Your task to perform on an android device: Open Youtube and go to the subscriptions tab Image 0: 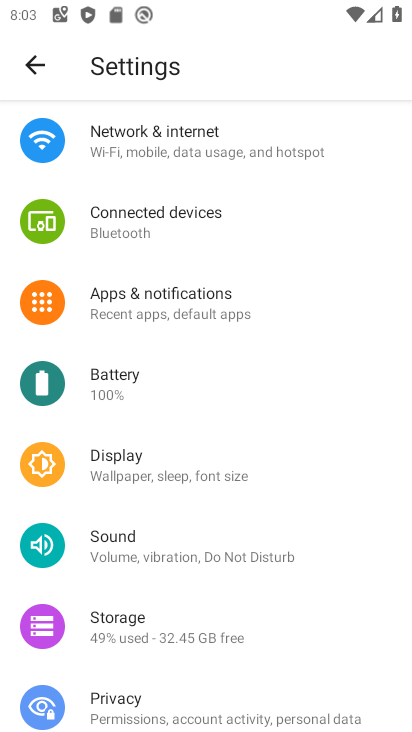
Step 0: press home button
Your task to perform on an android device: Open Youtube and go to the subscriptions tab Image 1: 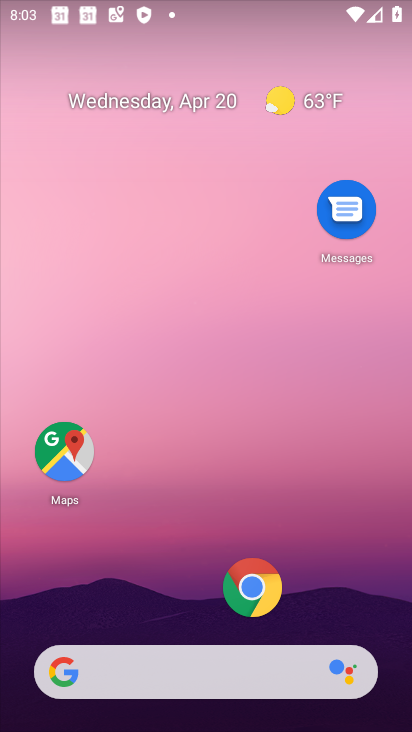
Step 1: drag from (184, 649) to (350, 1)
Your task to perform on an android device: Open Youtube and go to the subscriptions tab Image 2: 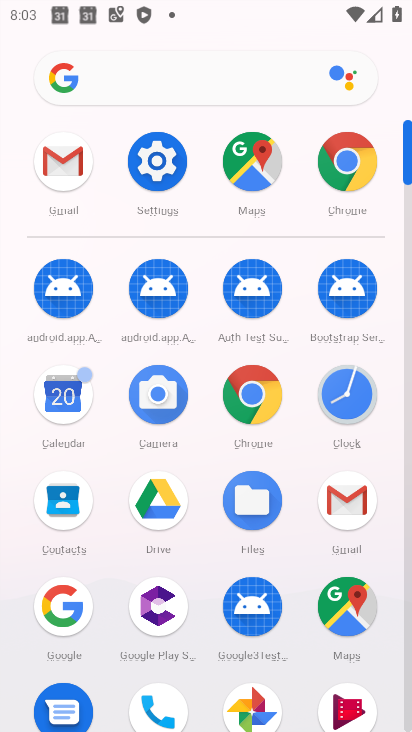
Step 2: drag from (200, 649) to (400, 197)
Your task to perform on an android device: Open Youtube and go to the subscriptions tab Image 3: 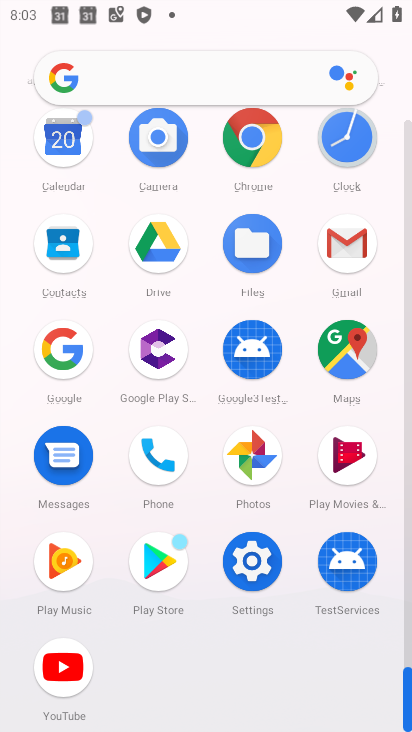
Step 3: click (69, 670)
Your task to perform on an android device: Open Youtube and go to the subscriptions tab Image 4: 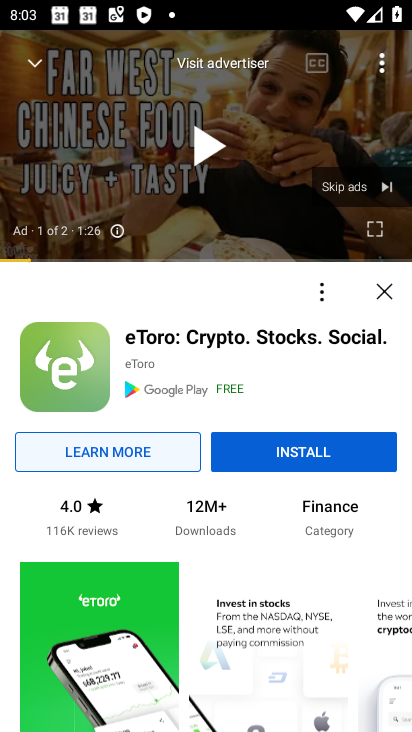
Step 4: press back button
Your task to perform on an android device: Open Youtube and go to the subscriptions tab Image 5: 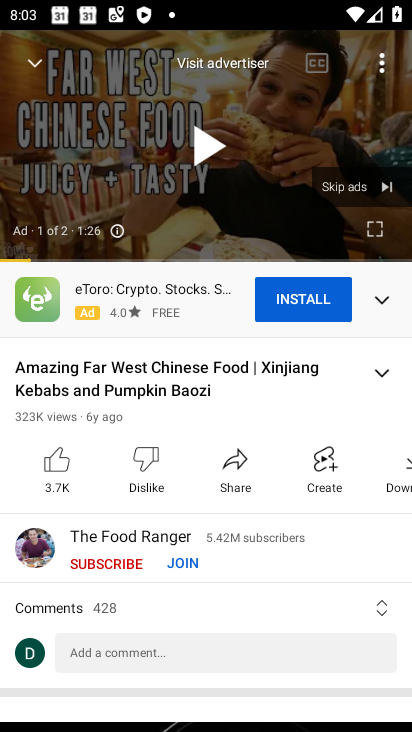
Step 5: click (384, 61)
Your task to perform on an android device: Open Youtube and go to the subscriptions tab Image 6: 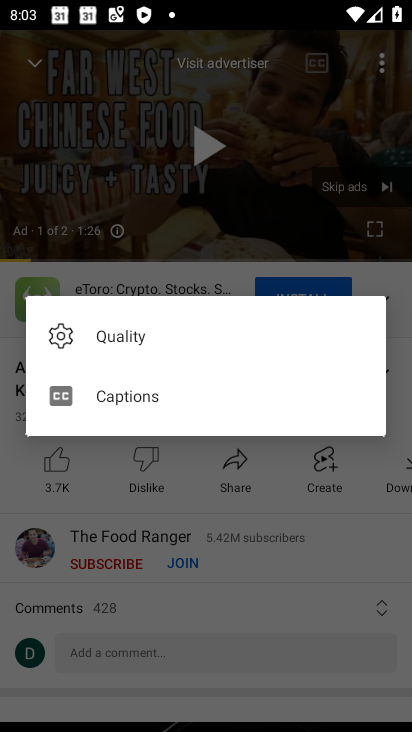
Step 6: press back button
Your task to perform on an android device: Open Youtube and go to the subscriptions tab Image 7: 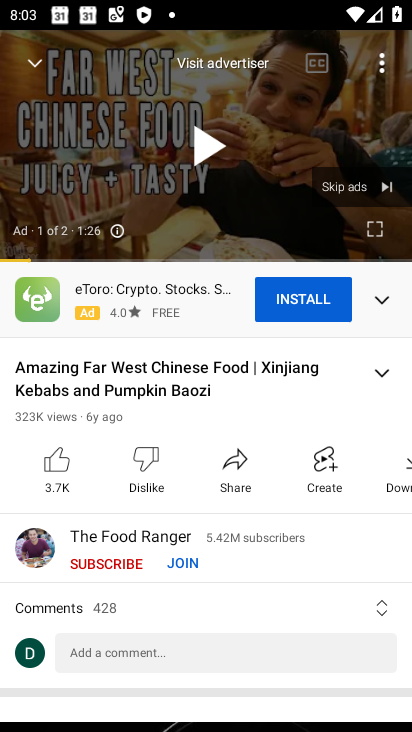
Step 7: press back button
Your task to perform on an android device: Open Youtube and go to the subscriptions tab Image 8: 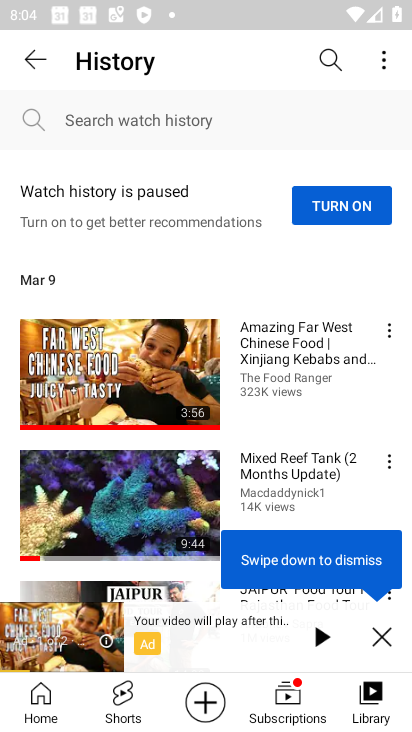
Step 8: click (277, 708)
Your task to perform on an android device: Open Youtube and go to the subscriptions tab Image 9: 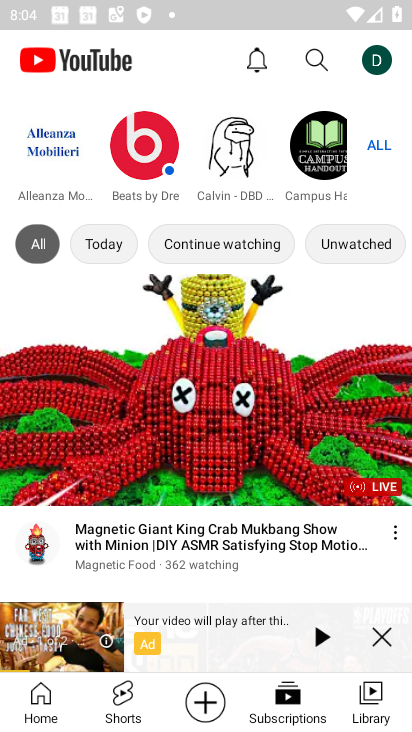
Step 9: click (383, 636)
Your task to perform on an android device: Open Youtube and go to the subscriptions tab Image 10: 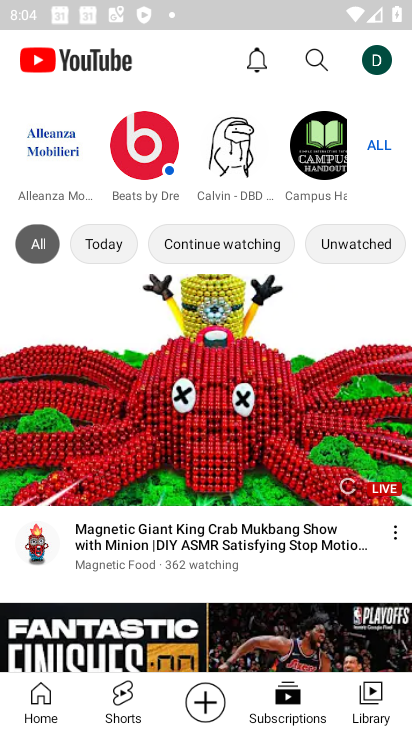
Step 10: task complete